Your task to perform on an android device: set the stopwatch Image 0: 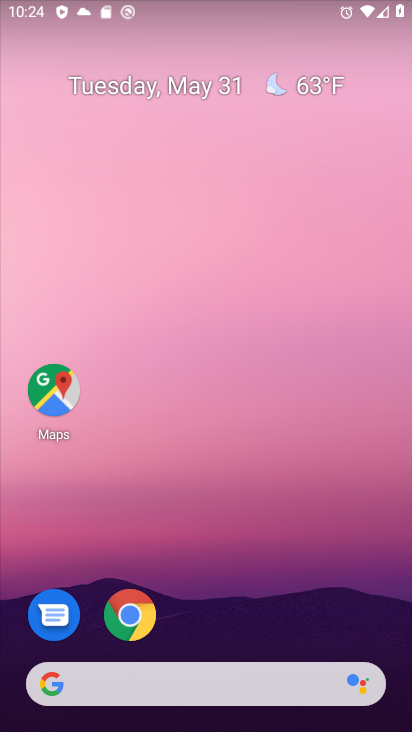
Step 0: drag from (192, 640) to (328, 25)
Your task to perform on an android device: set the stopwatch Image 1: 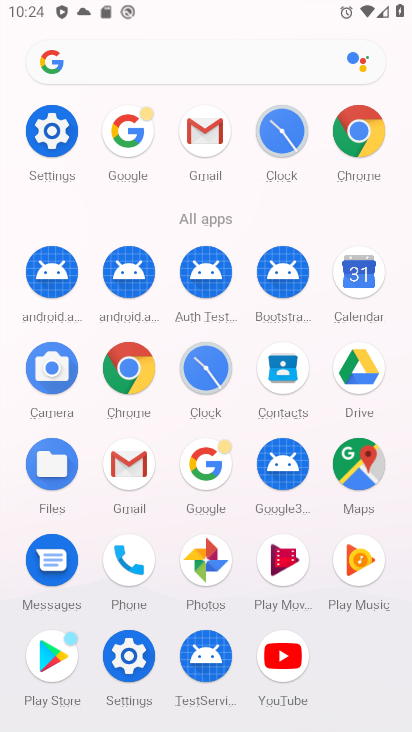
Step 1: click (221, 380)
Your task to perform on an android device: set the stopwatch Image 2: 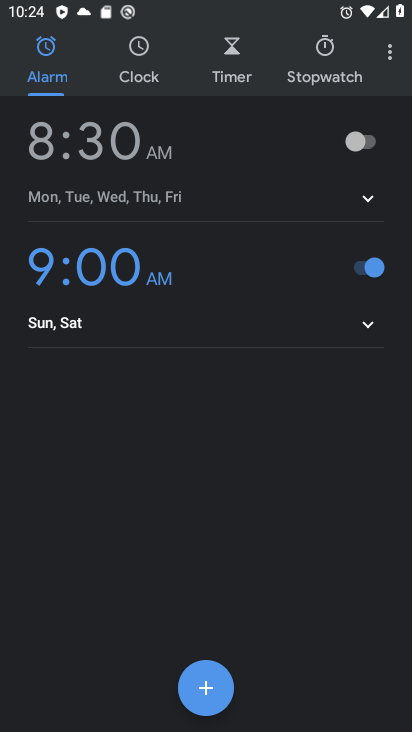
Step 2: click (319, 82)
Your task to perform on an android device: set the stopwatch Image 3: 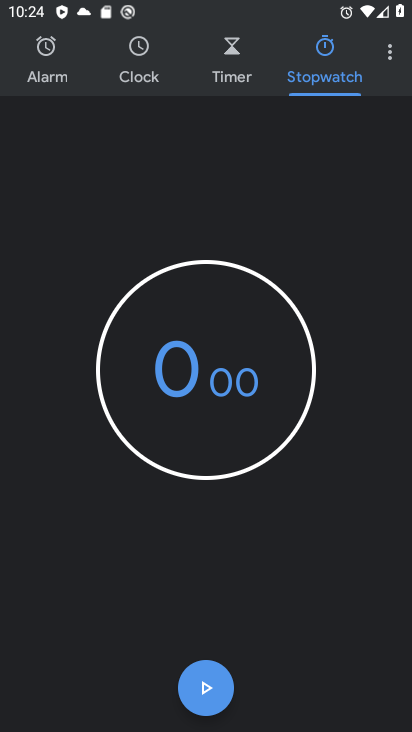
Step 3: click (213, 691)
Your task to perform on an android device: set the stopwatch Image 4: 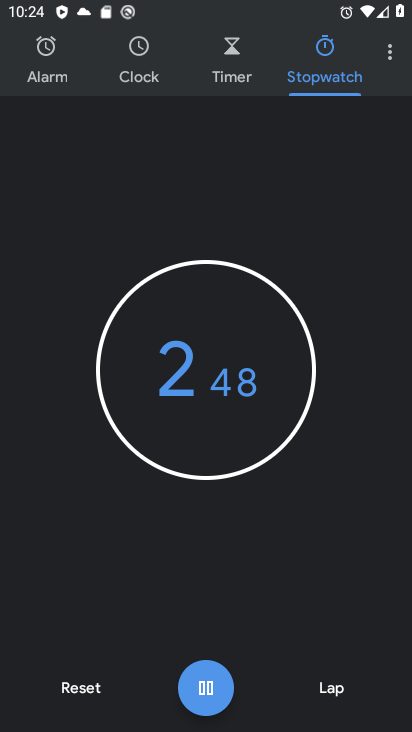
Step 4: task complete